Your task to perform on an android device: search for starred emails in the gmail app Image 0: 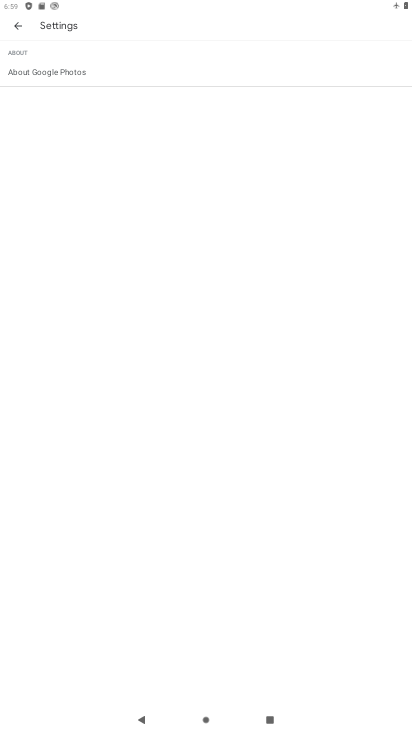
Step 0: press home button
Your task to perform on an android device: search for starred emails in the gmail app Image 1: 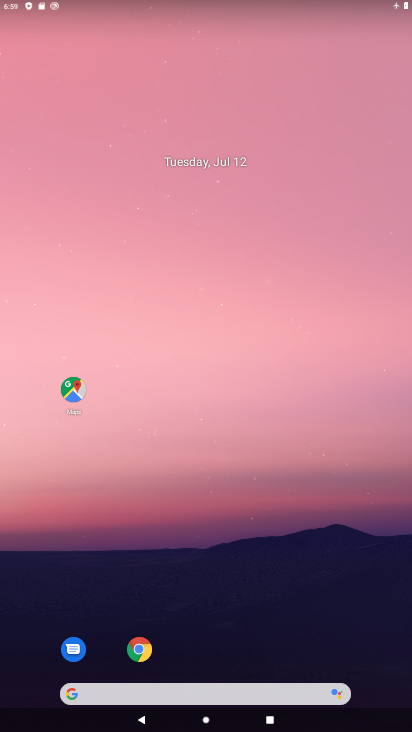
Step 1: drag from (214, 527) to (215, 133)
Your task to perform on an android device: search for starred emails in the gmail app Image 2: 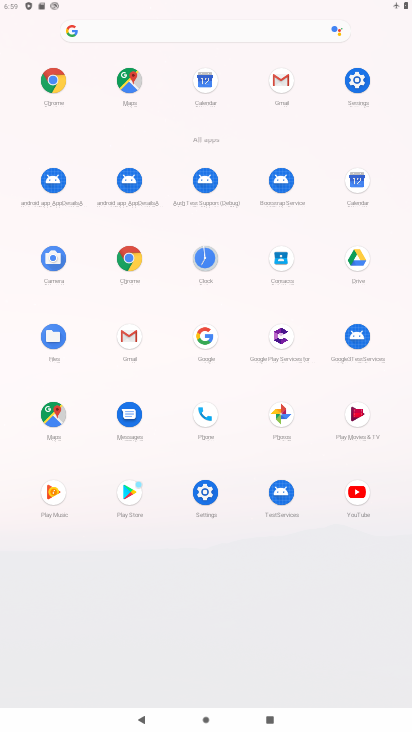
Step 2: click (280, 84)
Your task to perform on an android device: search for starred emails in the gmail app Image 3: 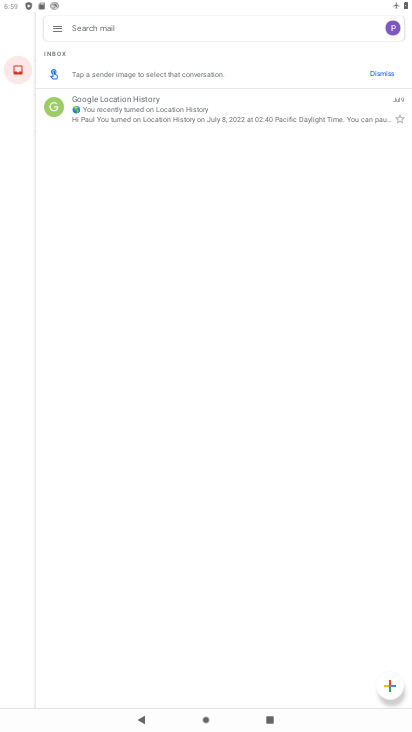
Step 3: click (62, 26)
Your task to perform on an android device: search for starred emails in the gmail app Image 4: 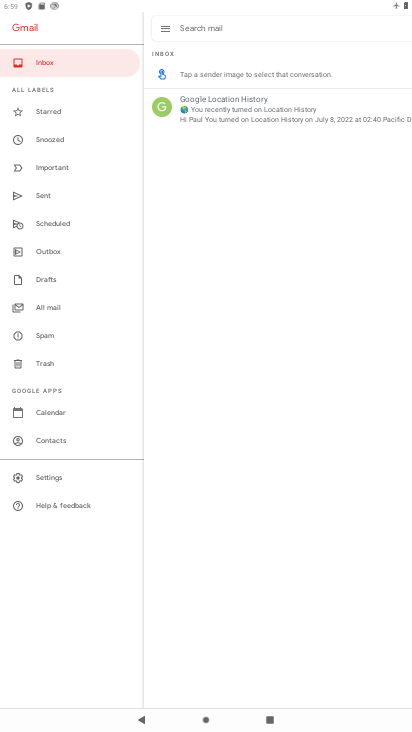
Step 4: click (57, 110)
Your task to perform on an android device: search for starred emails in the gmail app Image 5: 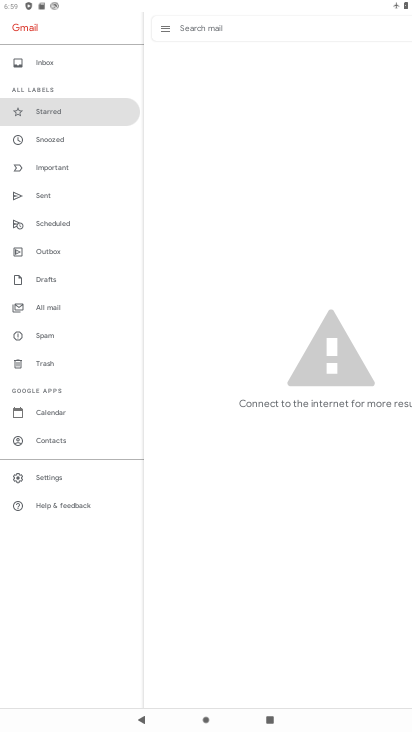
Step 5: task complete